Your task to perform on an android device: Open Google Maps and go to "Timeline" Image 0: 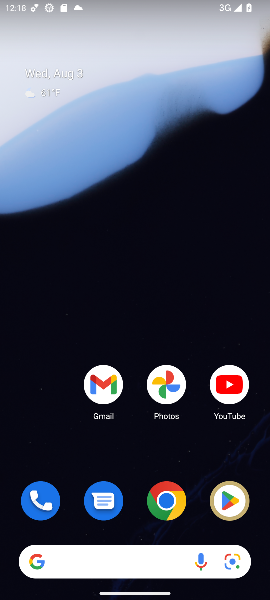
Step 0: drag from (118, 447) to (114, 8)
Your task to perform on an android device: Open Google Maps and go to "Timeline" Image 1: 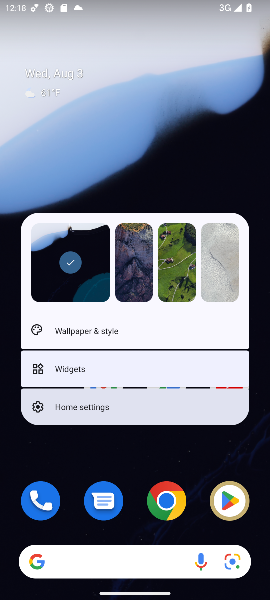
Step 1: click (148, 447)
Your task to perform on an android device: Open Google Maps and go to "Timeline" Image 2: 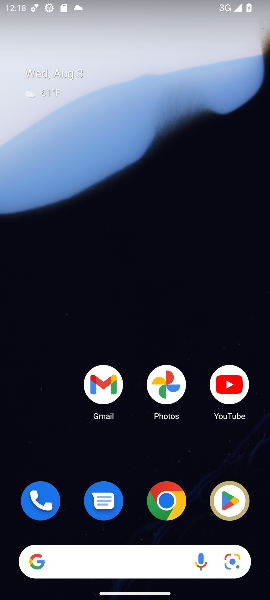
Step 2: drag from (148, 447) to (123, 168)
Your task to perform on an android device: Open Google Maps and go to "Timeline" Image 3: 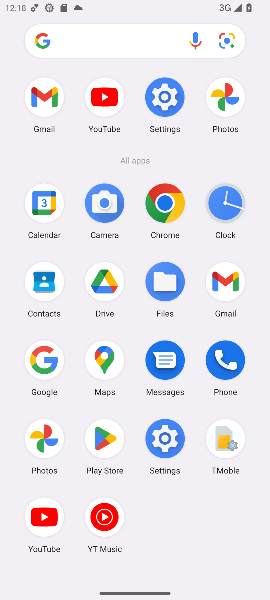
Step 3: click (103, 367)
Your task to perform on an android device: Open Google Maps and go to "Timeline" Image 4: 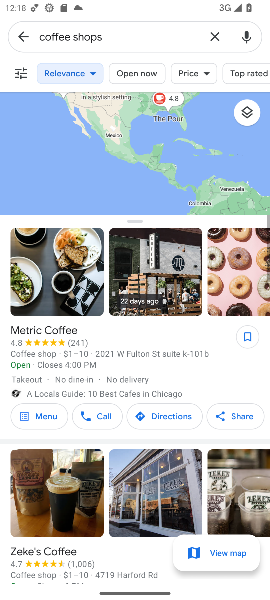
Step 4: click (16, 30)
Your task to perform on an android device: Open Google Maps and go to "Timeline" Image 5: 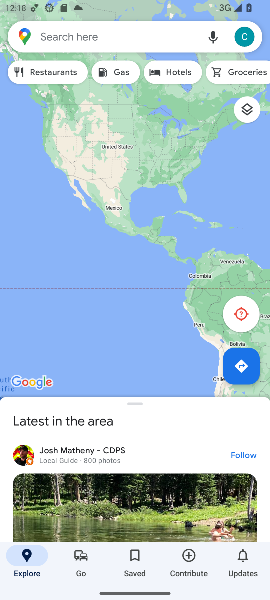
Step 5: click (241, 36)
Your task to perform on an android device: Open Google Maps and go to "Timeline" Image 6: 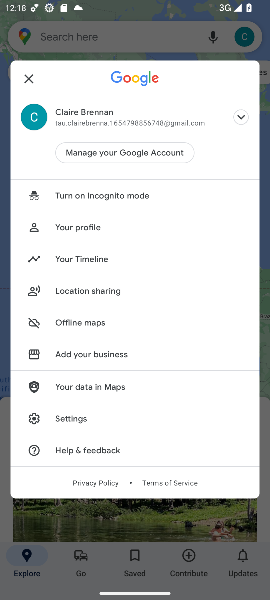
Step 6: click (65, 258)
Your task to perform on an android device: Open Google Maps and go to "Timeline" Image 7: 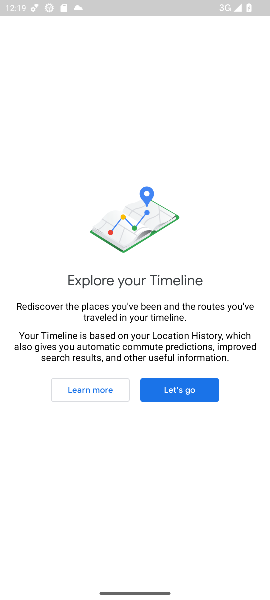
Step 7: click (157, 387)
Your task to perform on an android device: Open Google Maps and go to "Timeline" Image 8: 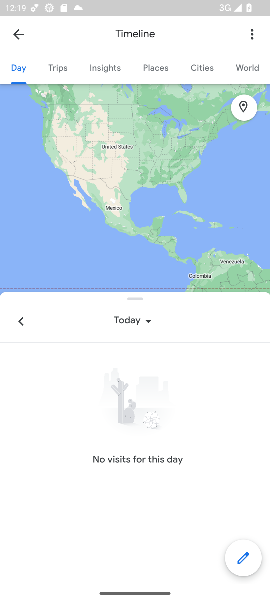
Step 8: task complete